Your task to perform on an android device: check android version Image 0: 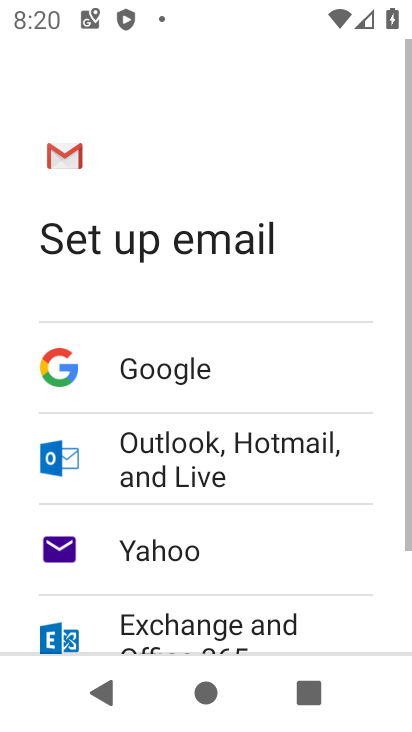
Step 0: press home button
Your task to perform on an android device: check android version Image 1: 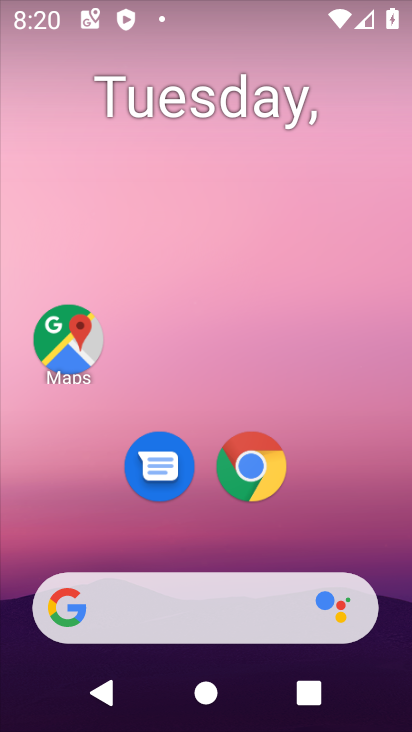
Step 1: drag from (209, 527) to (227, 209)
Your task to perform on an android device: check android version Image 2: 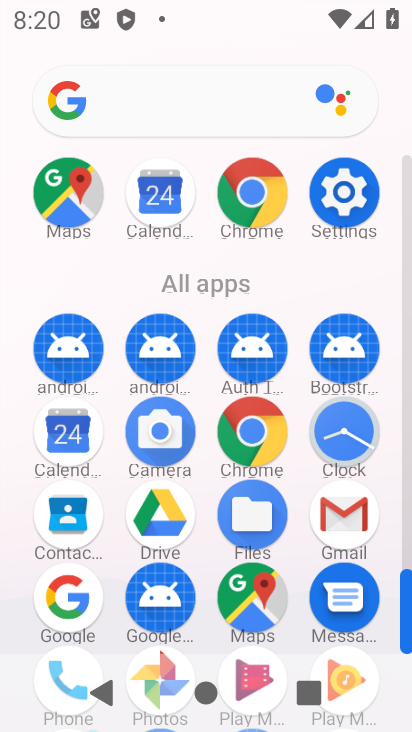
Step 2: click (367, 208)
Your task to perform on an android device: check android version Image 3: 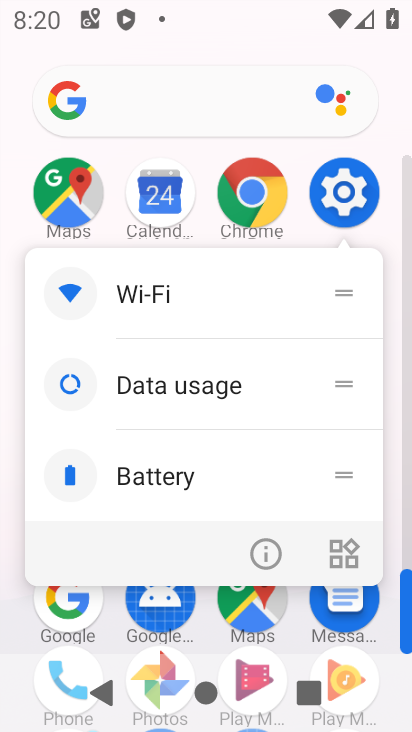
Step 3: click (350, 176)
Your task to perform on an android device: check android version Image 4: 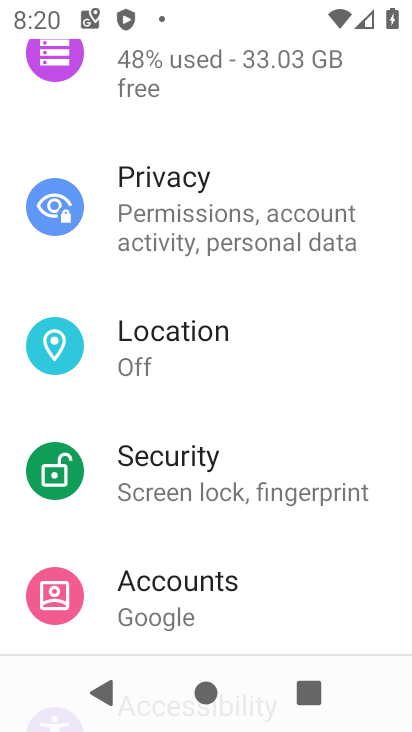
Step 4: drag from (209, 547) to (226, 263)
Your task to perform on an android device: check android version Image 5: 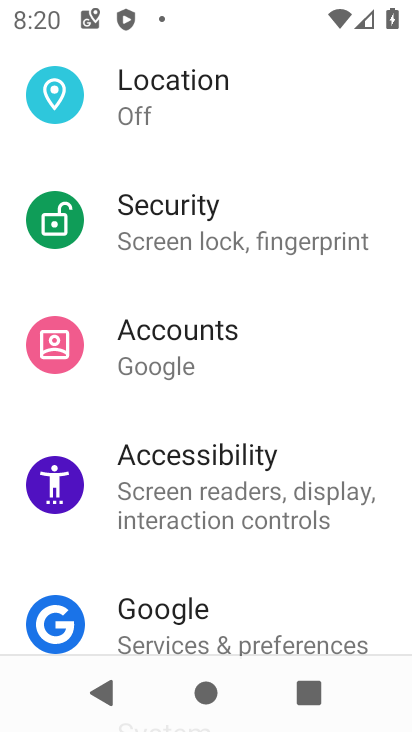
Step 5: drag from (180, 544) to (223, 290)
Your task to perform on an android device: check android version Image 6: 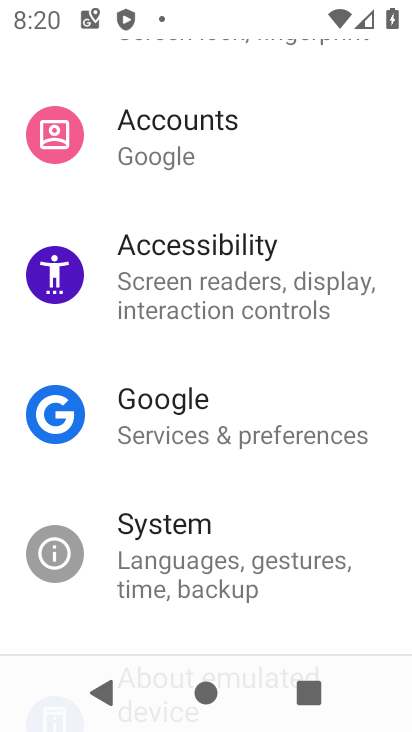
Step 6: drag from (188, 537) to (202, 326)
Your task to perform on an android device: check android version Image 7: 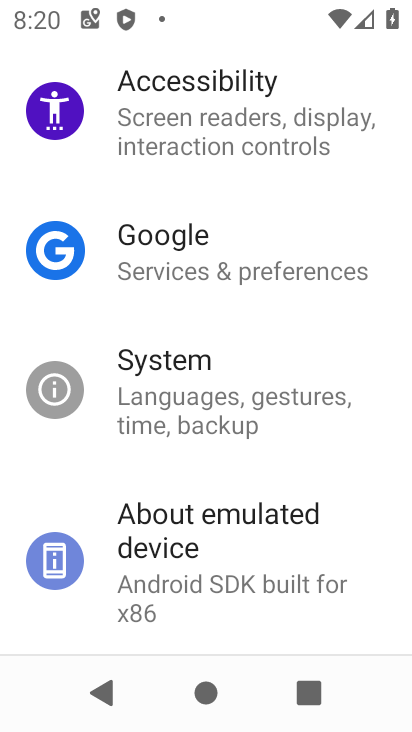
Step 7: drag from (215, 557) to (232, 207)
Your task to perform on an android device: check android version Image 8: 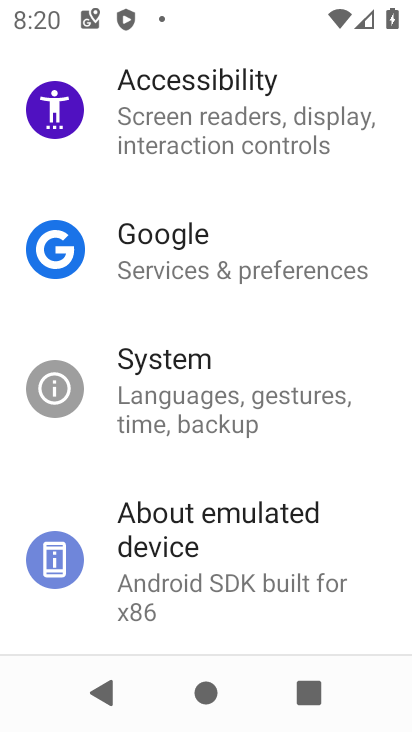
Step 8: click (175, 534)
Your task to perform on an android device: check android version Image 9: 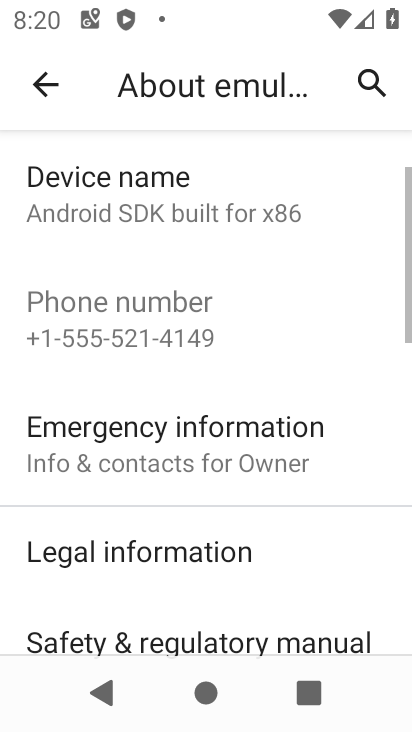
Step 9: drag from (185, 585) to (196, 270)
Your task to perform on an android device: check android version Image 10: 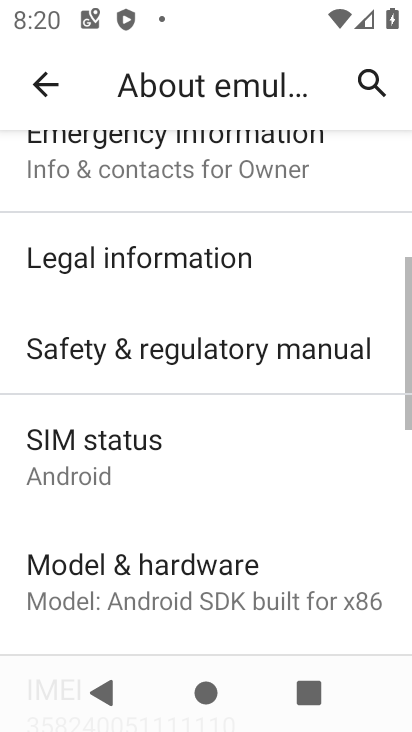
Step 10: drag from (150, 533) to (174, 299)
Your task to perform on an android device: check android version Image 11: 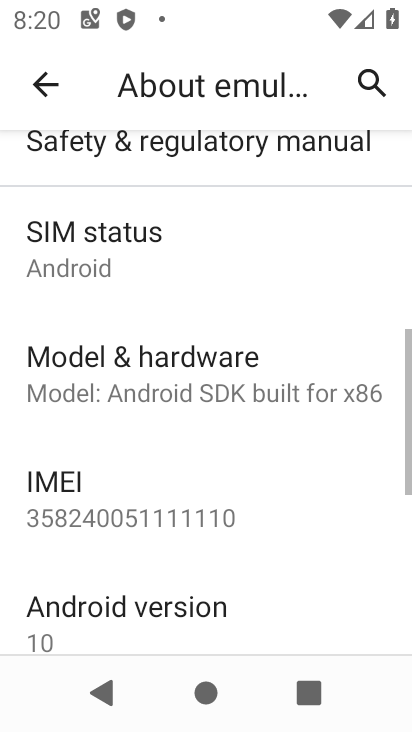
Step 11: click (112, 614)
Your task to perform on an android device: check android version Image 12: 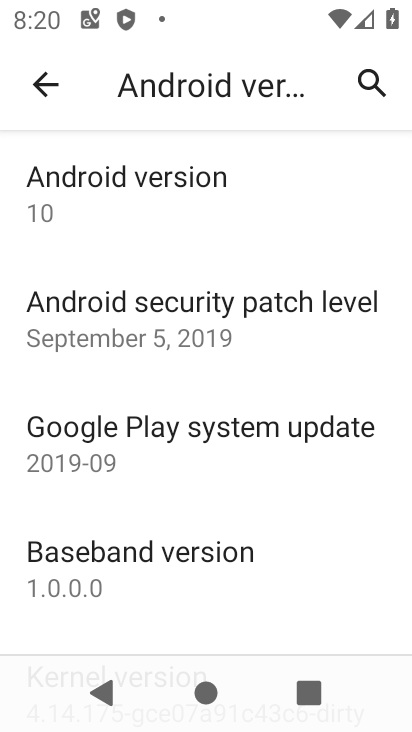
Step 12: task complete